Your task to perform on an android device: Clear the cart on amazon.com. Image 0: 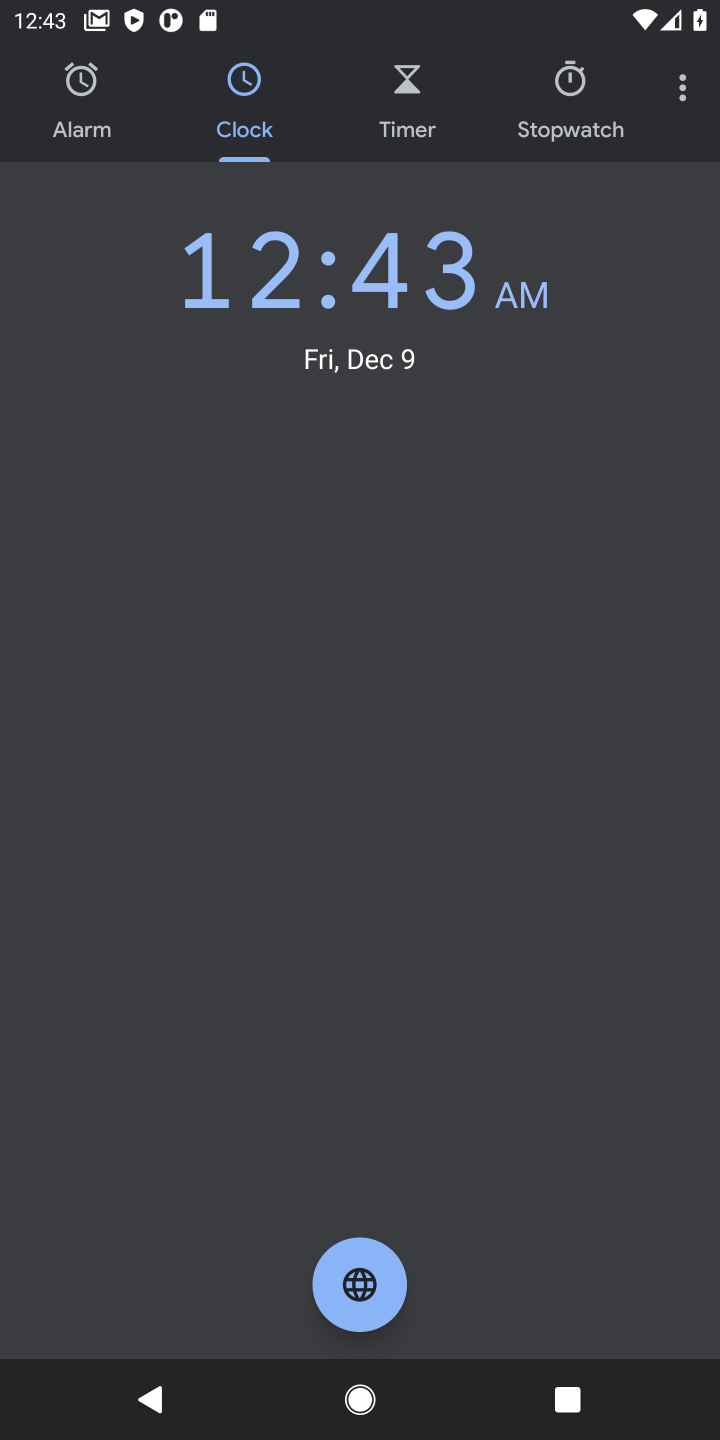
Step 0: press home button
Your task to perform on an android device: Clear the cart on amazon.com. Image 1: 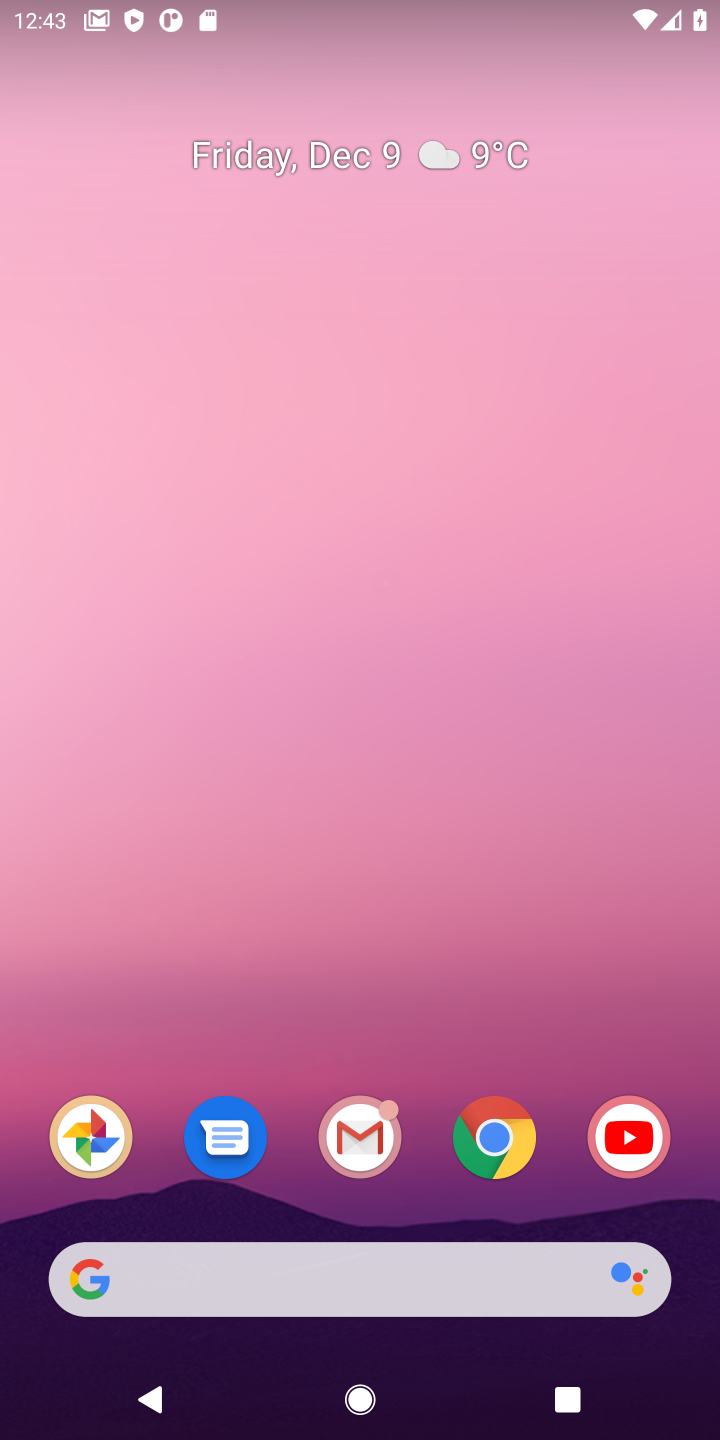
Step 1: click (403, 1263)
Your task to perform on an android device: Clear the cart on amazon.com. Image 2: 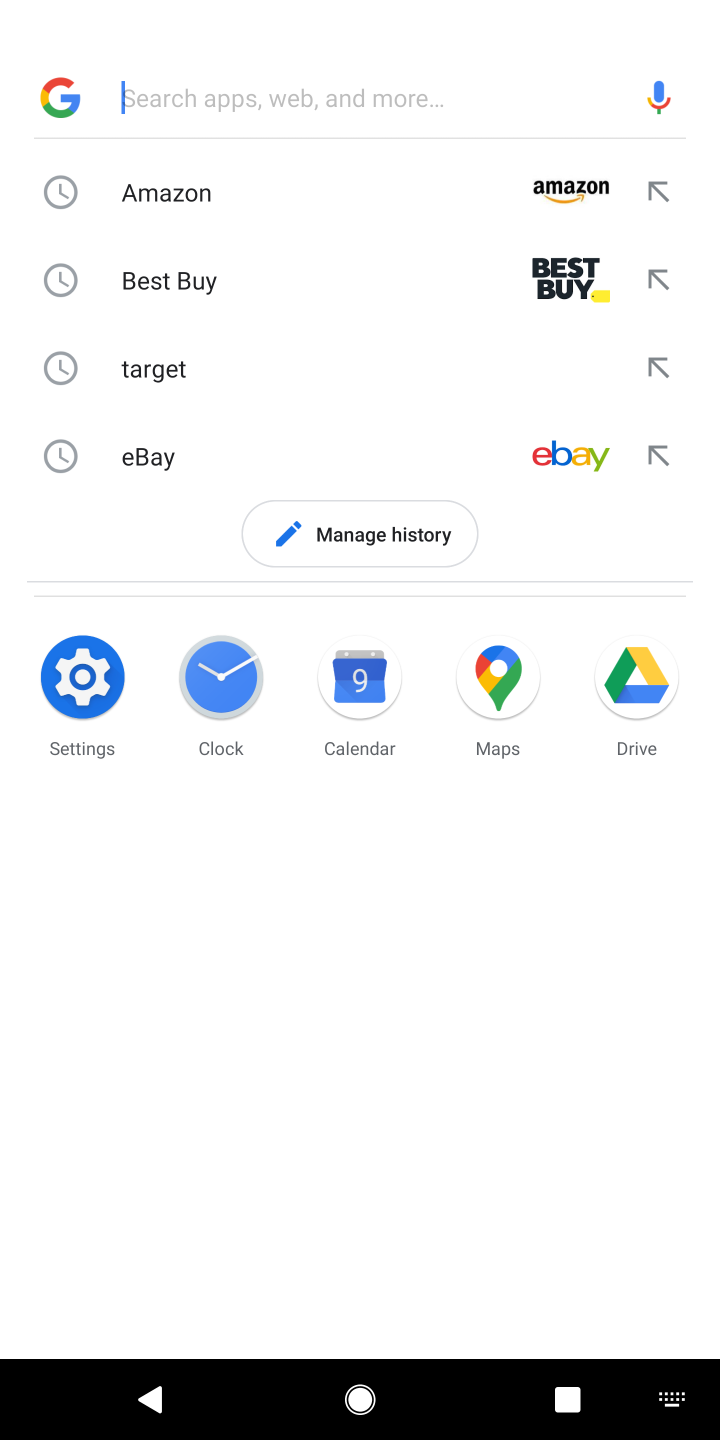
Step 2: click (171, 215)
Your task to perform on an android device: Clear the cart on amazon.com. Image 3: 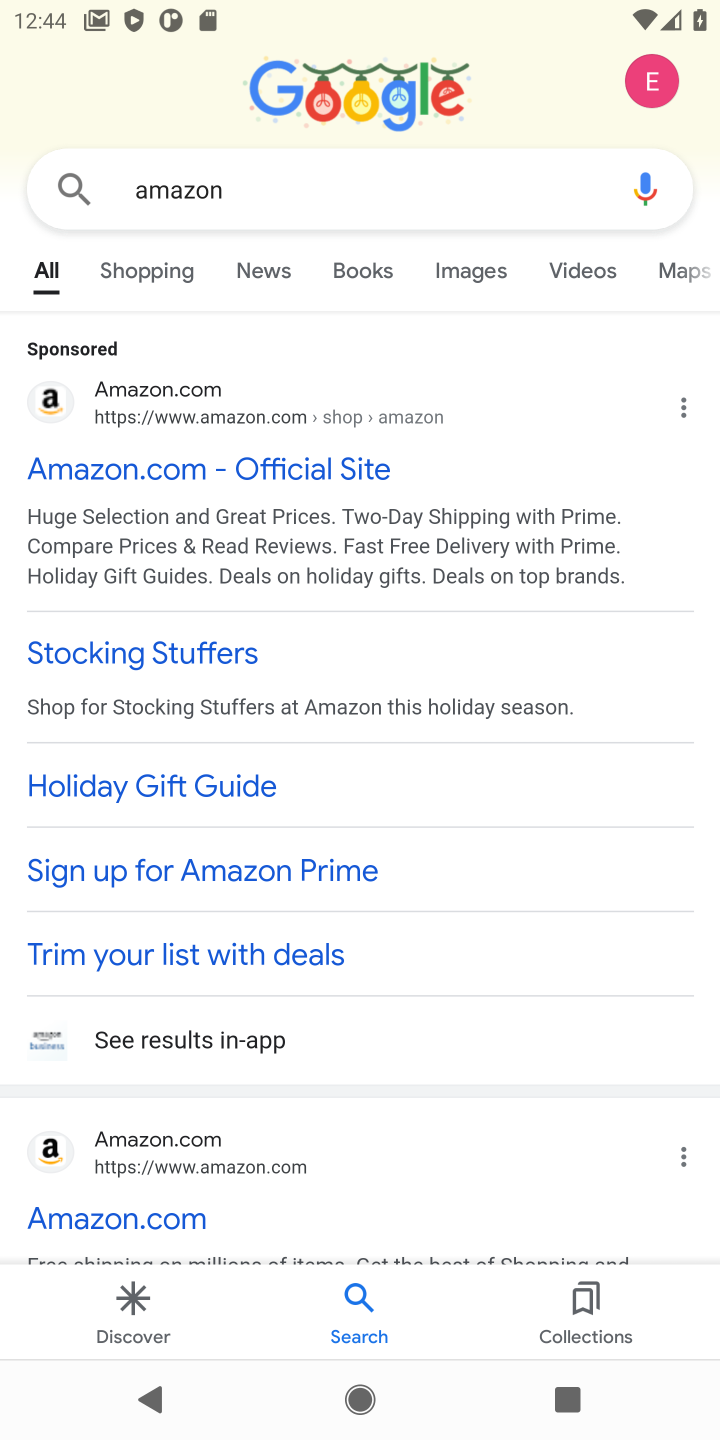
Step 3: click (150, 482)
Your task to perform on an android device: Clear the cart on amazon.com. Image 4: 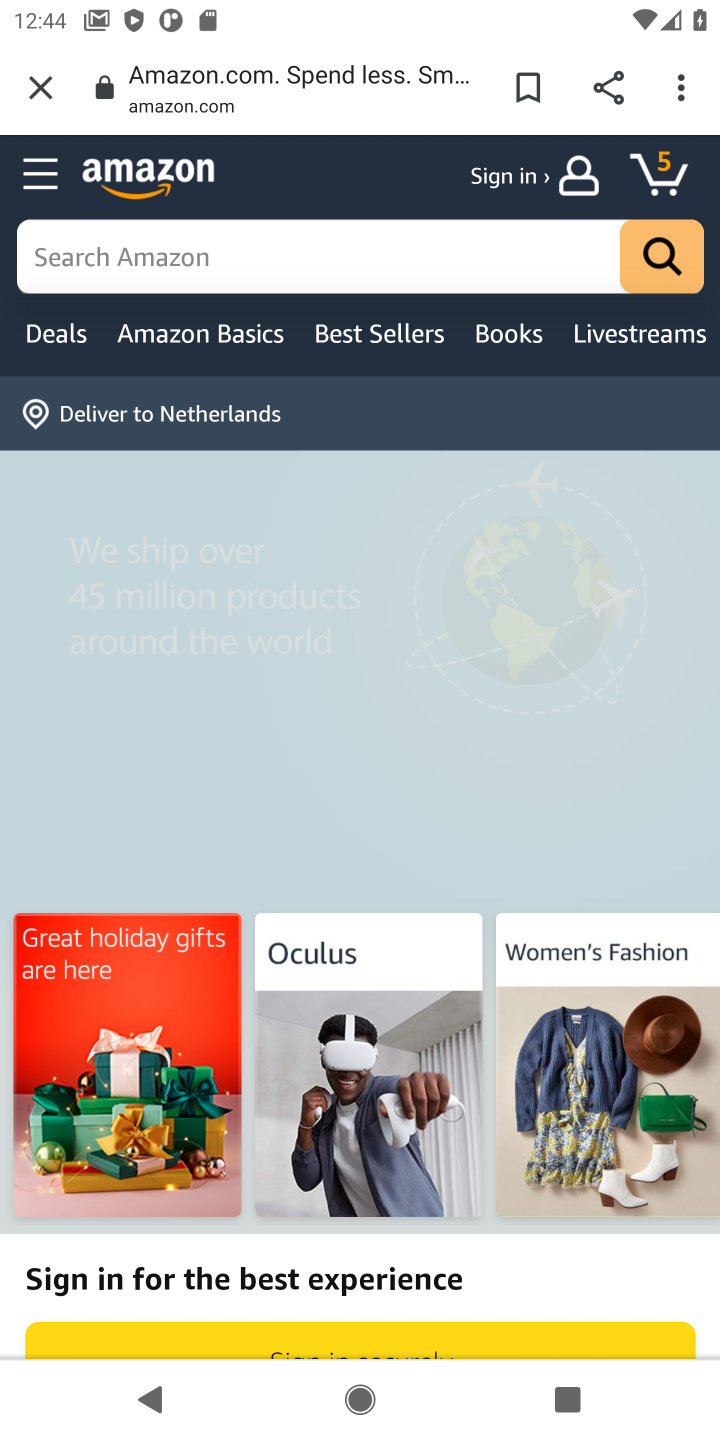
Step 4: click (115, 262)
Your task to perform on an android device: Clear the cart on amazon.com. Image 5: 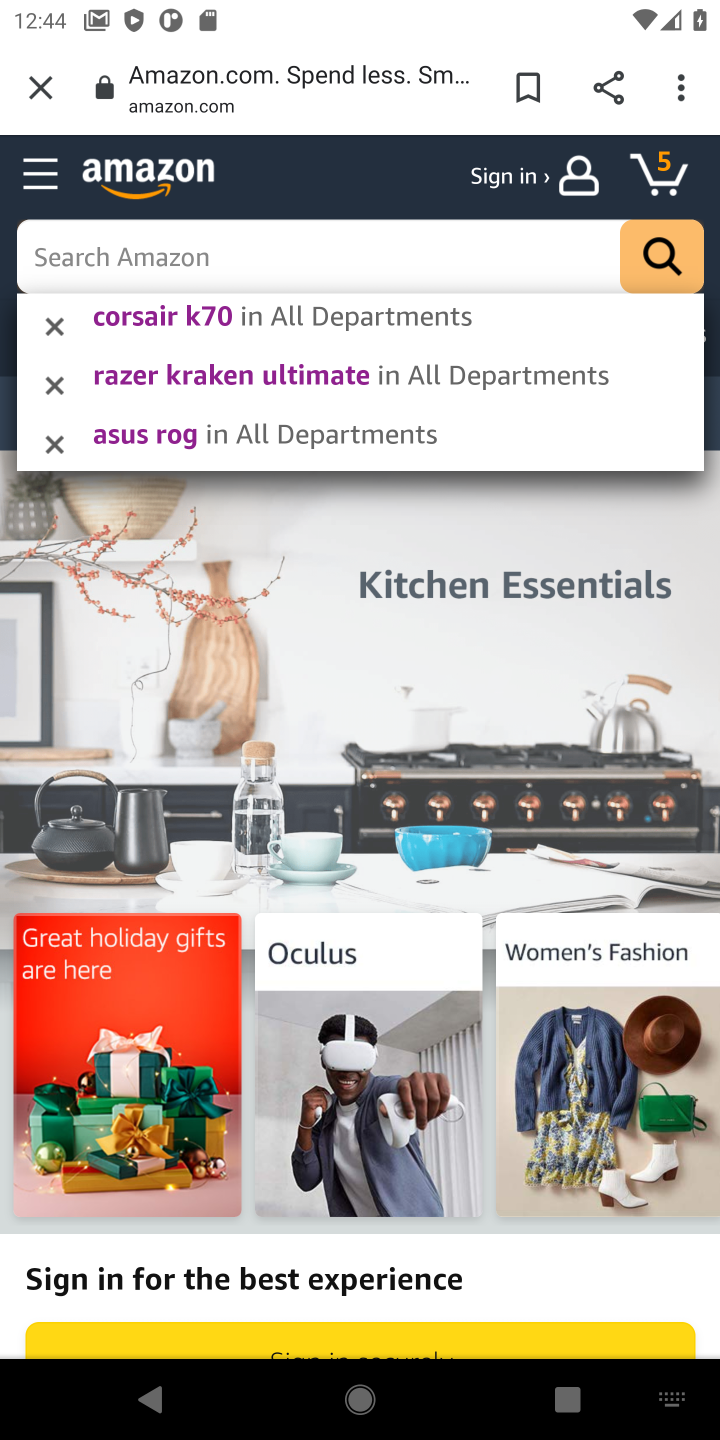
Step 5: click (676, 149)
Your task to perform on an android device: Clear the cart on amazon.com. Image 6: 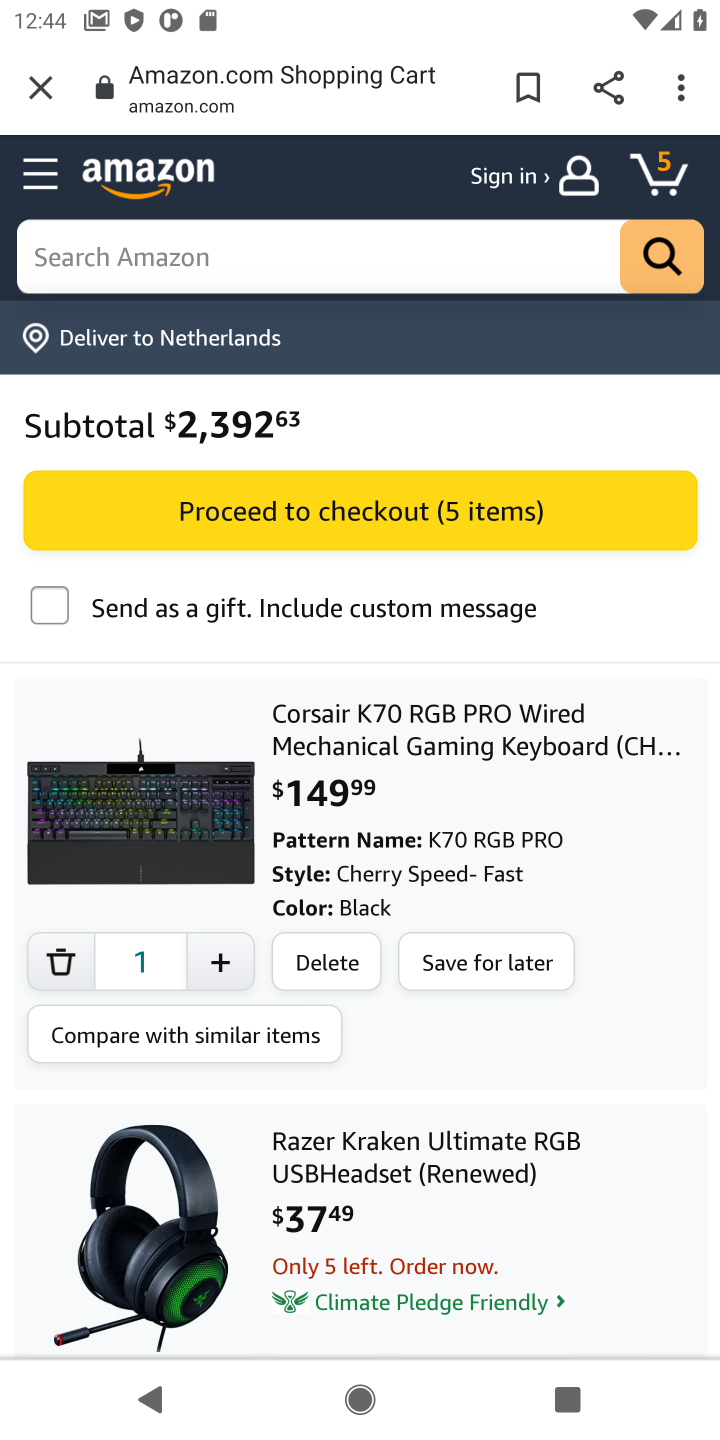
Step 6: click (331, 969)
Your task to perform on an android device: Clear the cart on amazon.com. Image 7: 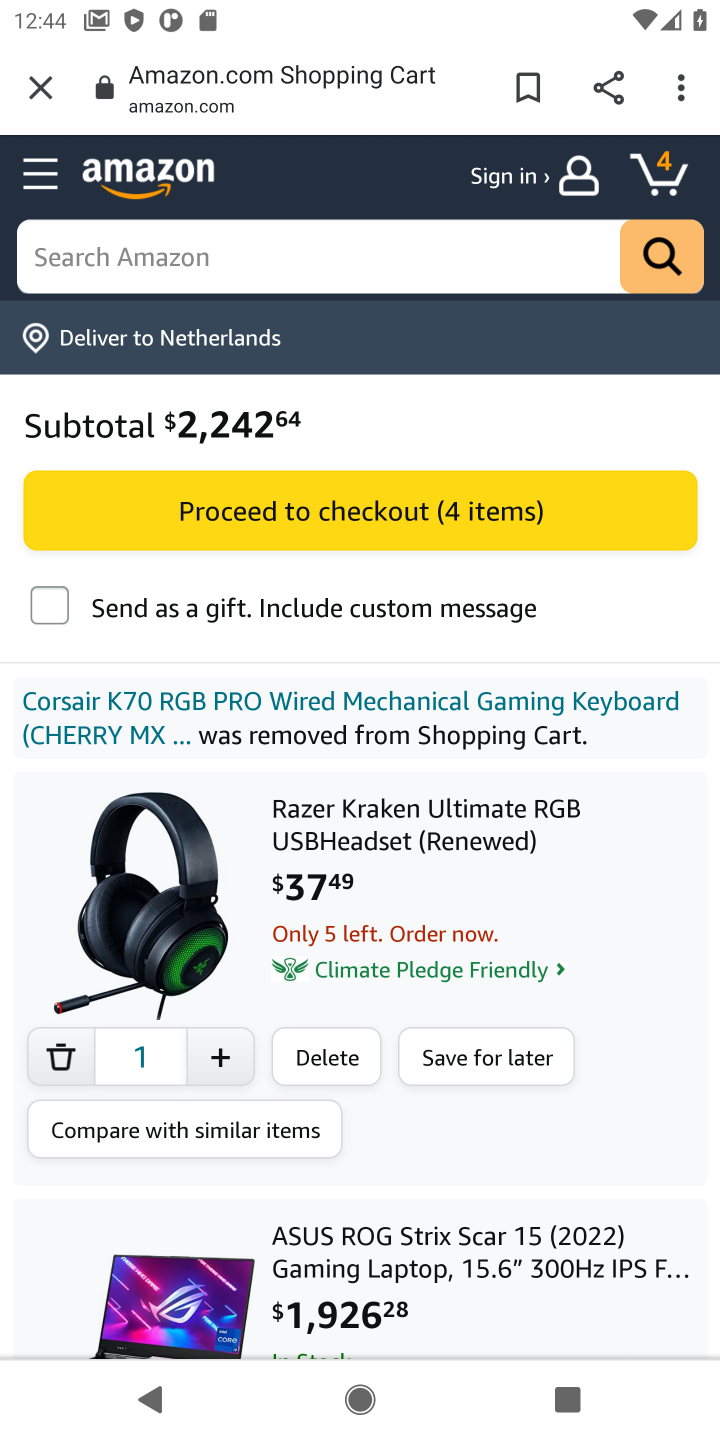
Step 7: click (319, 1067)
Your task to perform on an android device: Clear the cart on amazon.com. Image 8: 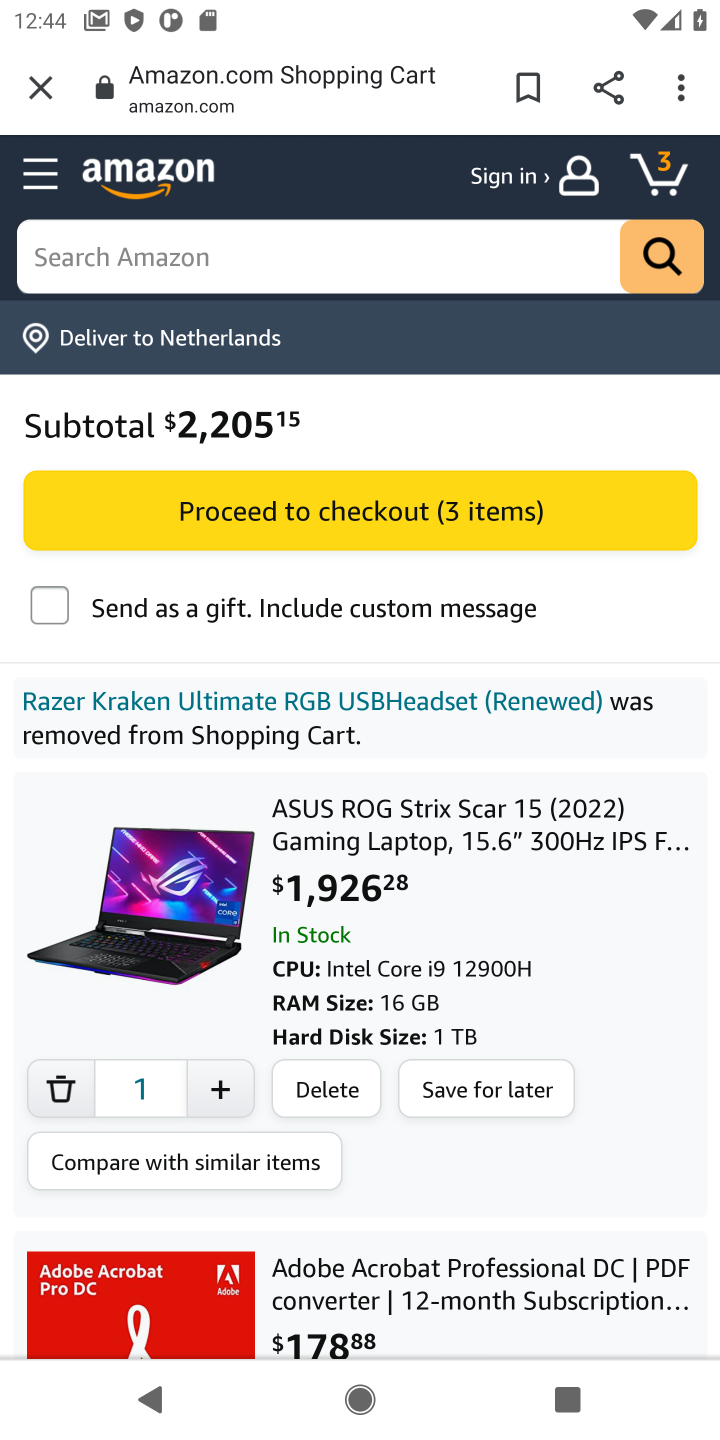
Step 8: click (317, 1088)
Your task to perform on an android device: Clear the cart on amazon.com. Image 9: 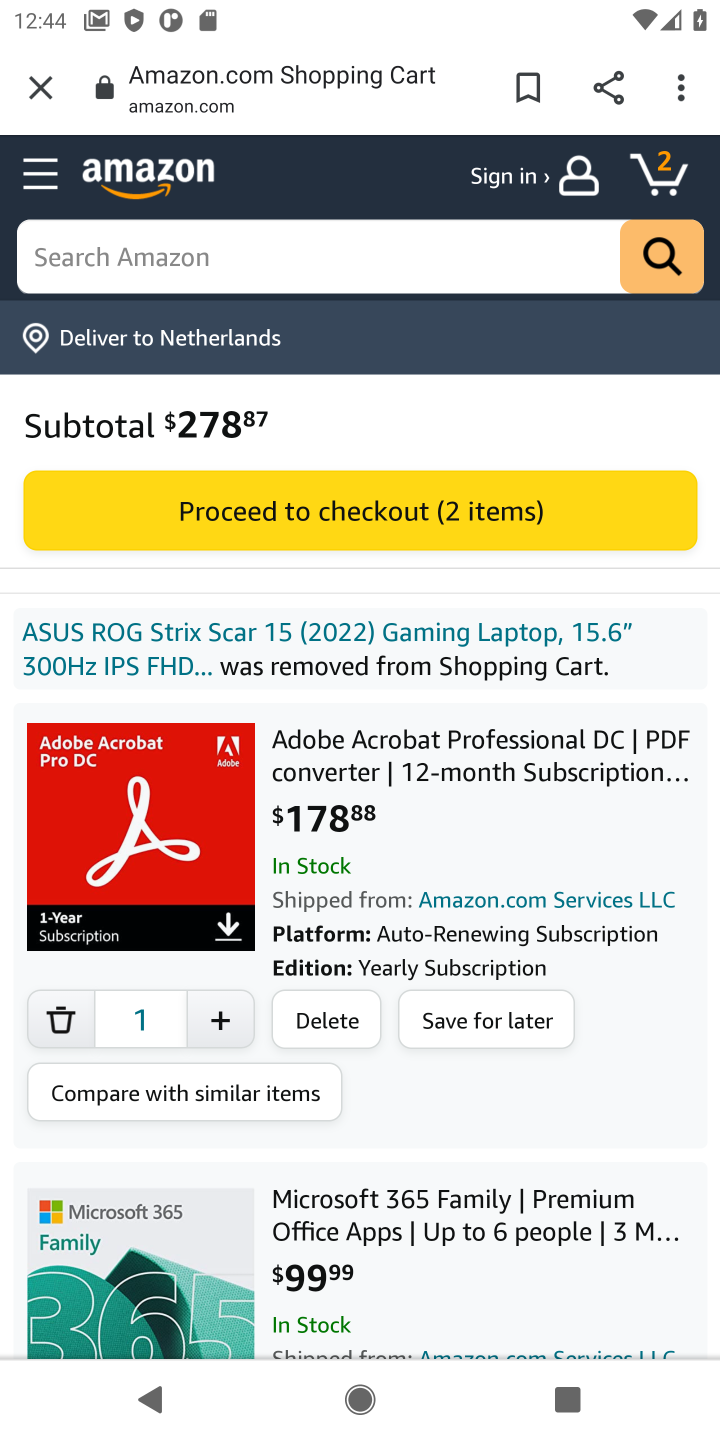
Step 9: click (350, 1018)
Your task to perform on an android device: Clear the cart on amazon.com. Image 10: 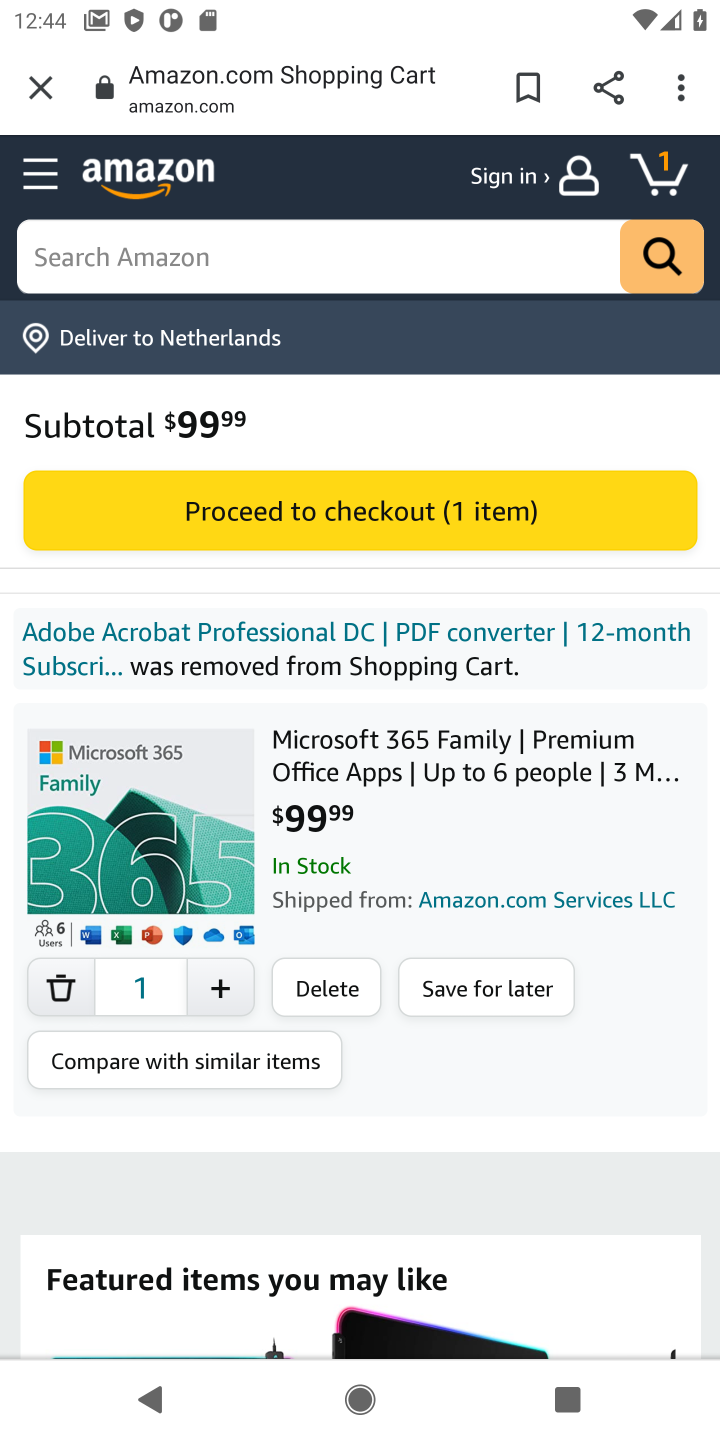
Step 10: click (350, 995)
Your task to perform on an android device: Clear the cart on amazon.com. Image 11: 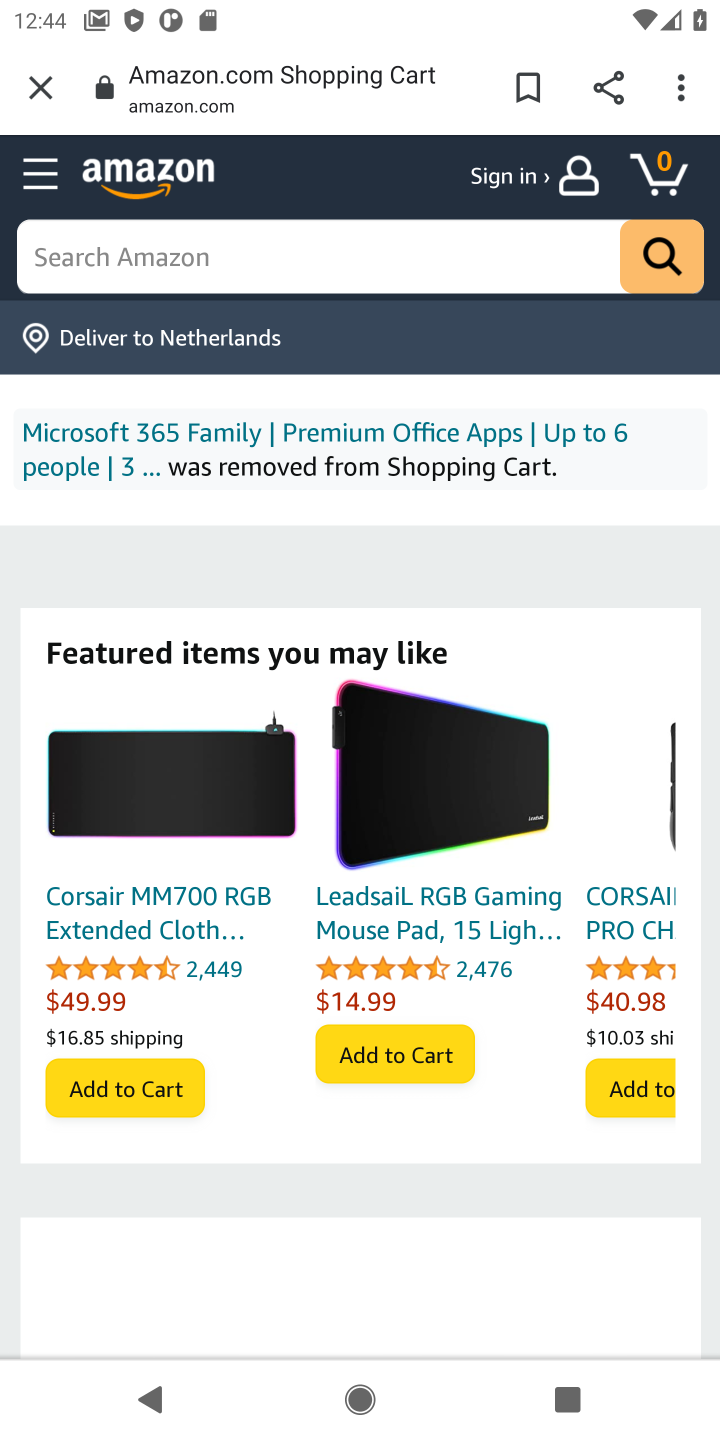
Step 11: task complete